Your task to perform on an android device: toggle wifi Image 0: 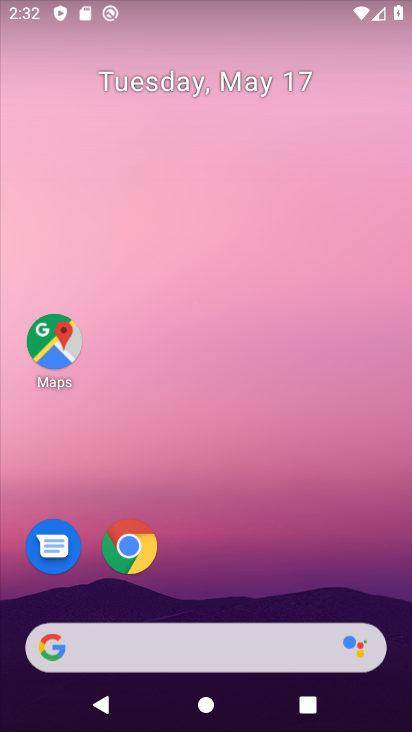
Step 0: drag from (365, 7) to (281, 725)
Your task to perform on an android device: toggle wifi Image 1: 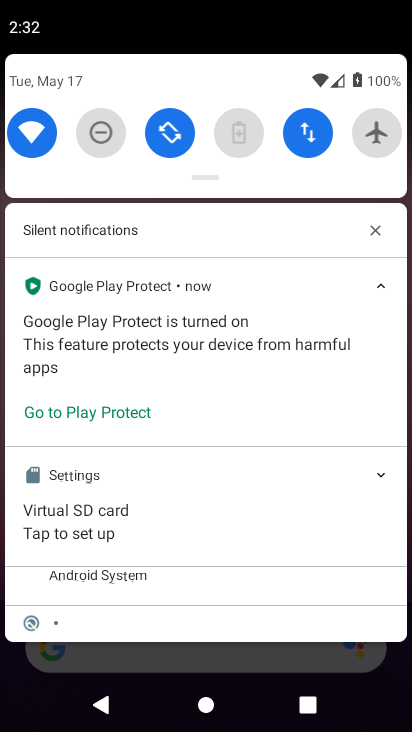
Step 1: click (35, 128)
Your task to perform on an android device: toggle wifi Image 2: 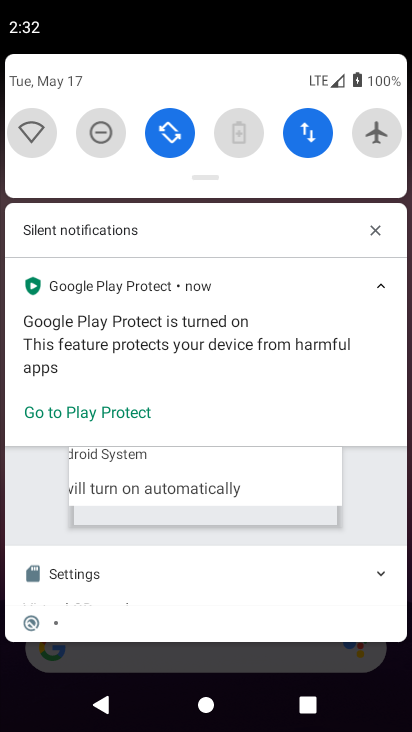
Step 2: task complete